Your task to perform on an android device: Open notification settings Image 0: 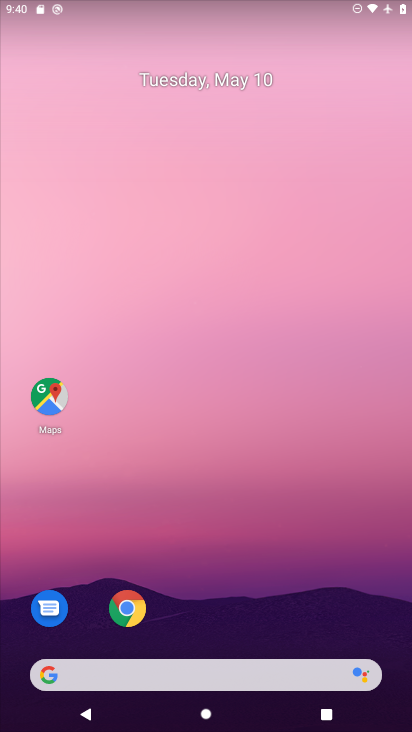
Step 0: drag from (254, 612) to (257, 180)
Your task to perform on an android device: Open notification settings Image 1: 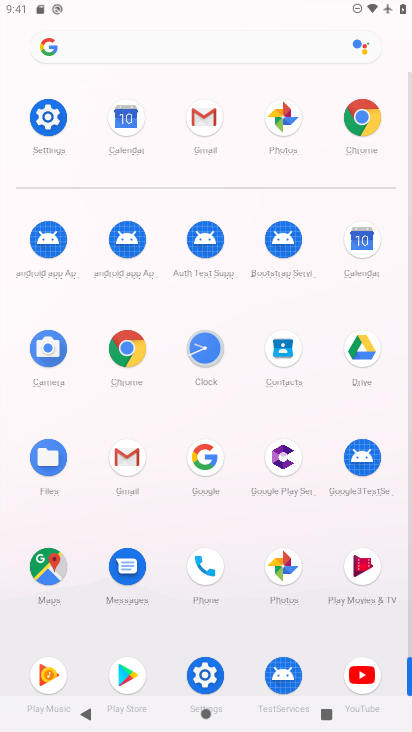
Step 1: click (45, 119)
Your task to perform on an android device: Open notification settings Image 2: 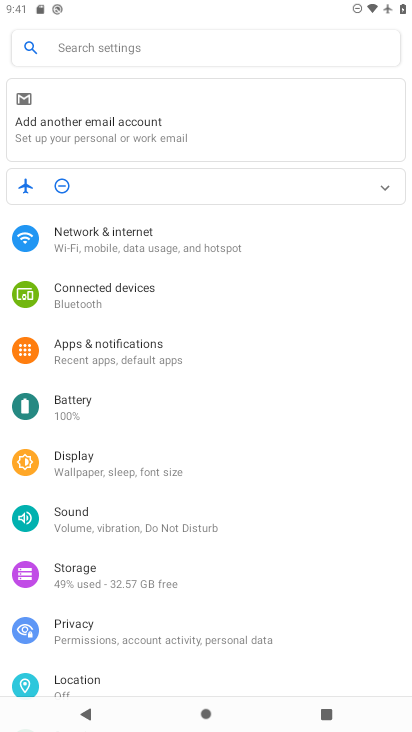
Step 2: click (132, 346)
Your task to perform on an android device: Open notification settings Image 3: 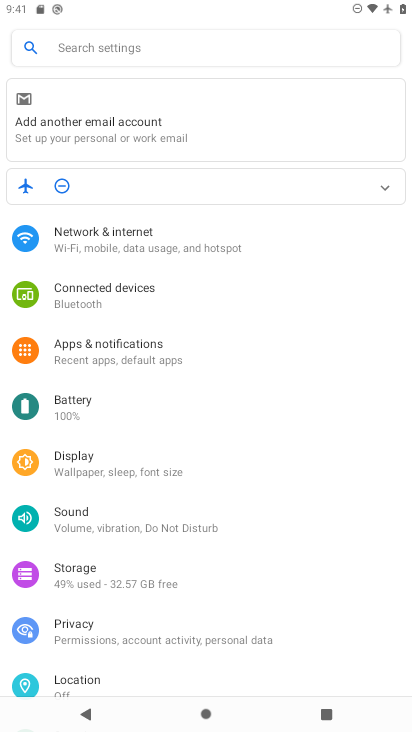
Step 3: click (121, 350)
Your task to perform on an android device: Open notification settings Image 4: 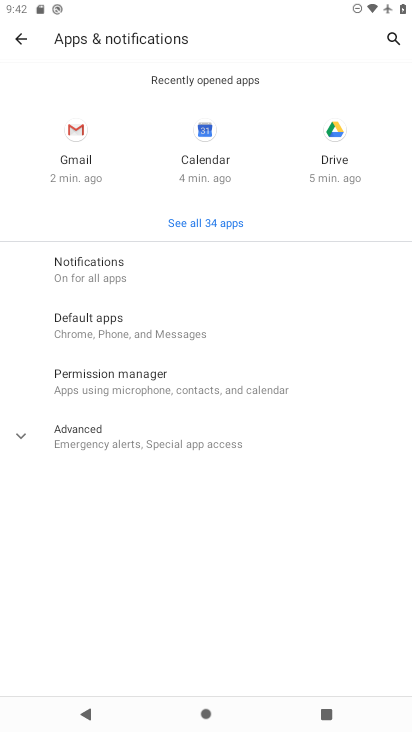
Step 4: click (137, 261)
Your task to perform on an android device: Open notification settings Image 5: 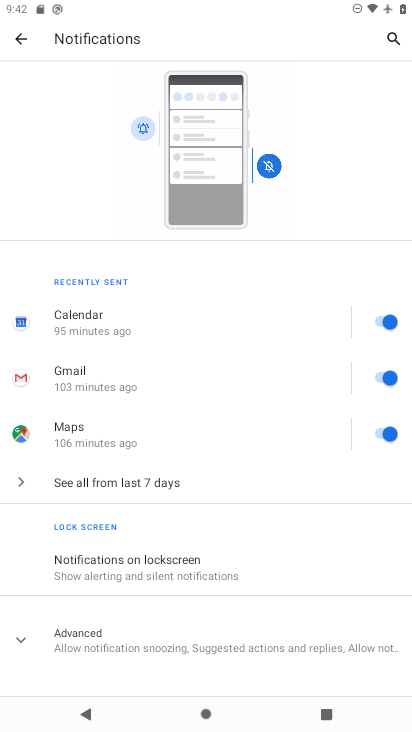
Step 5: task complete